Your task to perform on an android device: turn on sleep mode Image 0: 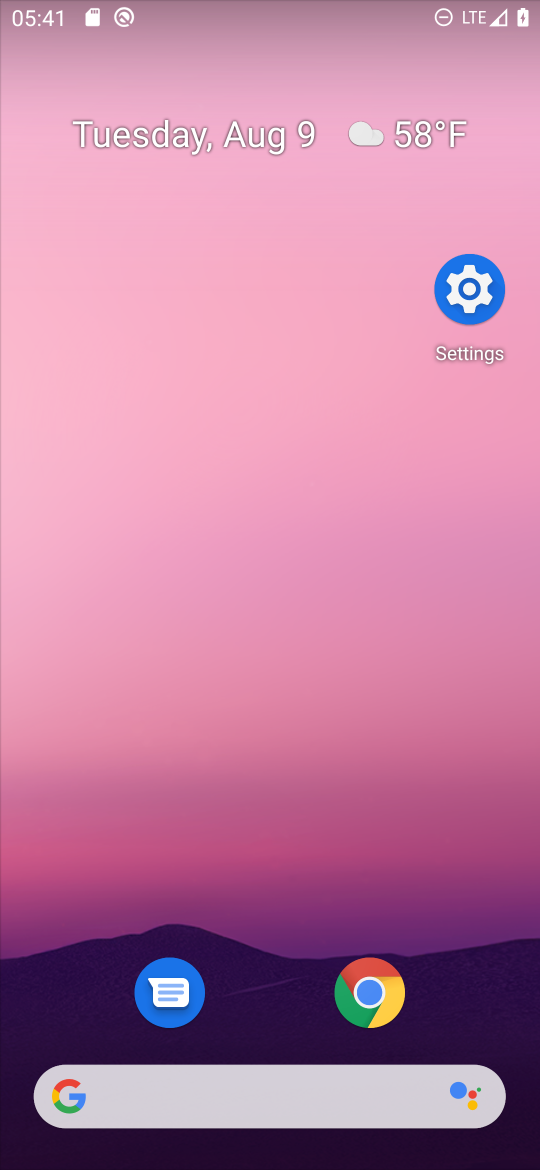
Step 0: drag from (237, 1100) to (353, 168)
Your task to perform on an android device: turn on sleep mode Image 1: 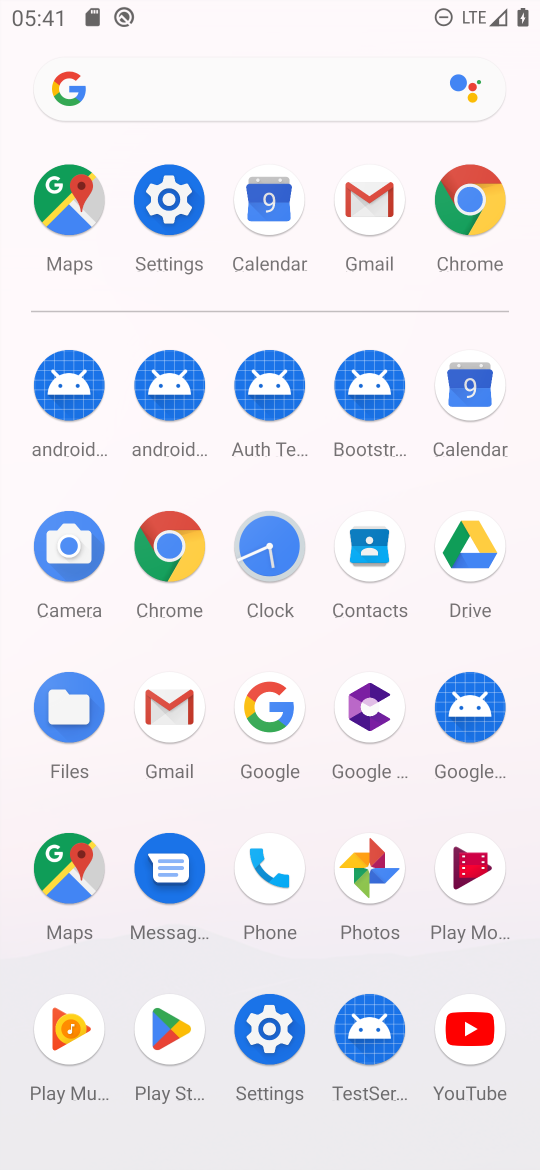
Step 1: click (170, 204)
Your task to perform on an android device: turn on sleep mode Image 2: 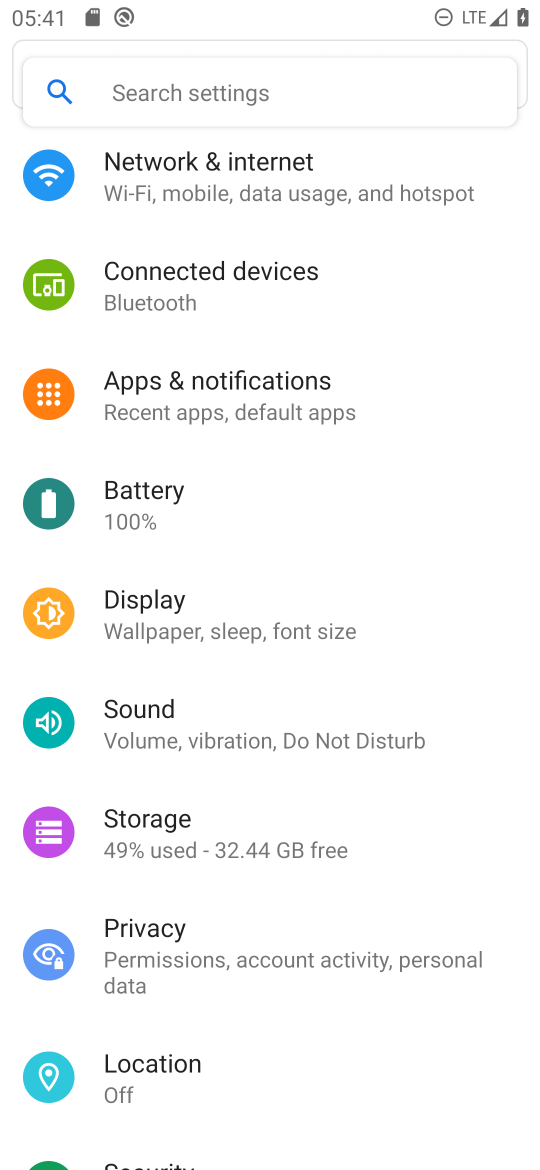
Step 2: click (170, 393)
Your task to perform on an android device: turn on sleep mode Image 3: 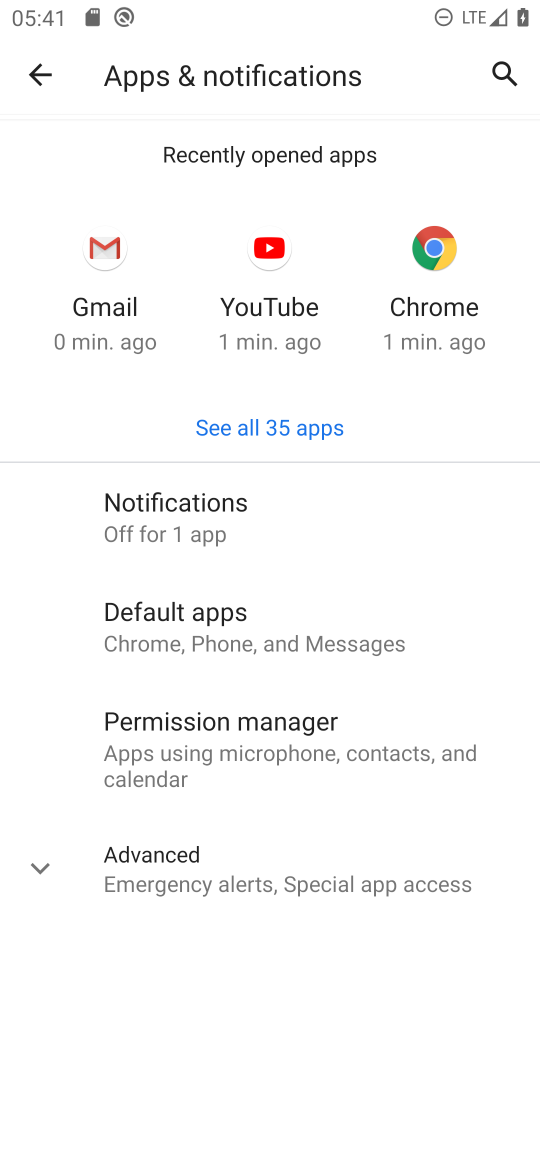
Step 3: task complete